Your task to perform on an android device: Go to Yahoo.com Image 0: 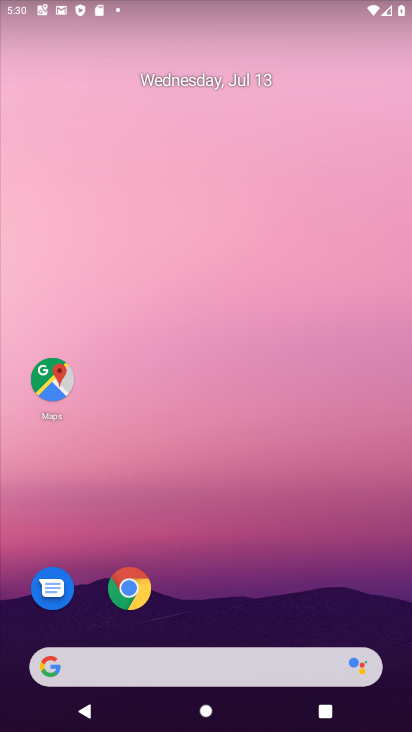
Step 0: drag from (220, 415) to (257, 224)
Your task to perform on an android device: Go to Yahoo.com Image 1: 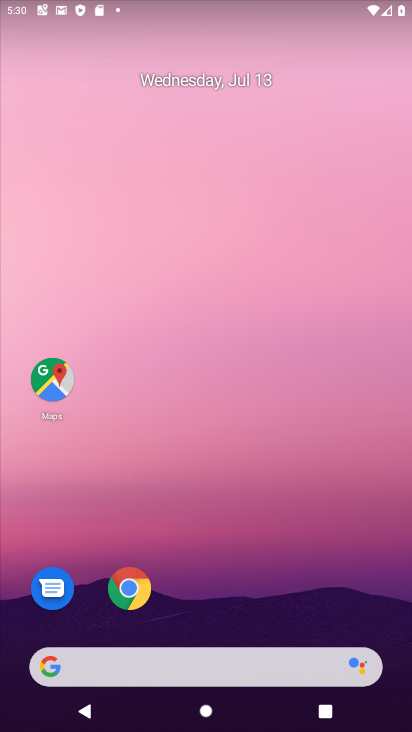
Step 1: drag from (202, 612) to (335, 120)
Your task to perform on an android device: Go to Yahoo.com Image 2: 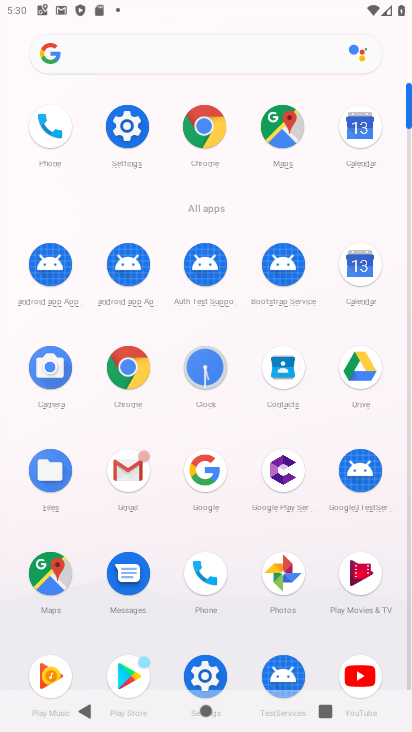
Step 2: click (204, 137)
Your task to perform on an android device: Go to Yahoo.com Image 3: 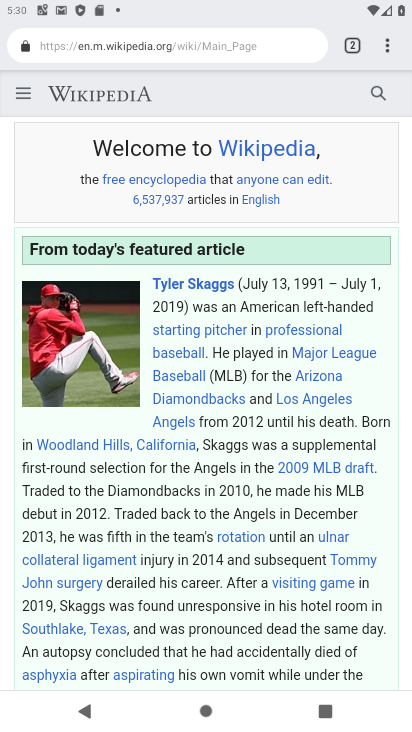
Step 3: press back button
Your task to perform on an android device: Go to Yahoo.com Image 4: 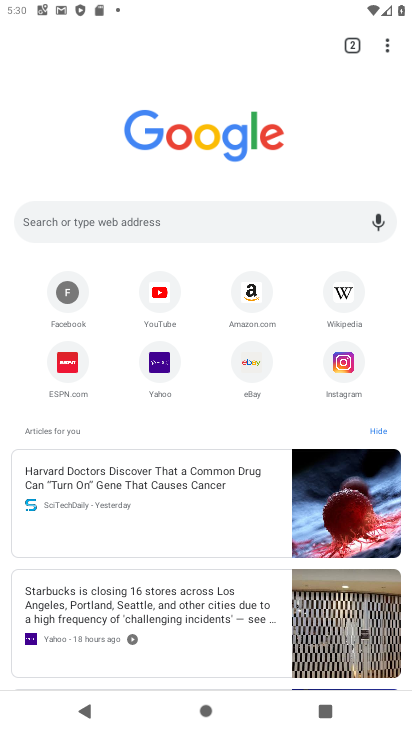
Step 4: click (163, 370)
Your task to perform on an android device: Go to Yahoo.com Image 5: 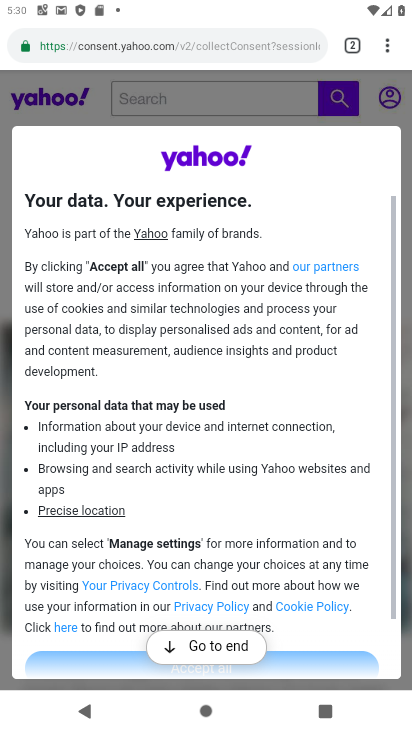
Step 5: task complete